Your task to perform on an android device: turn on notifications settings in the gmail app Image 0: 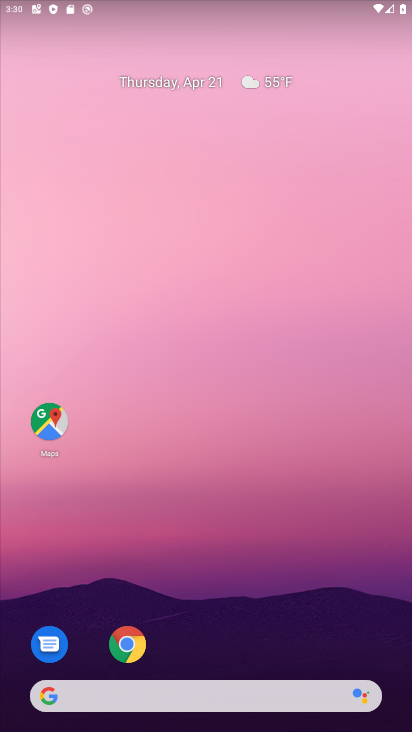
Step 0: drag from (213, 676) to (209, 36)
Your task to perform on an android device: turn on notifications settings in the gmail app Image 1: 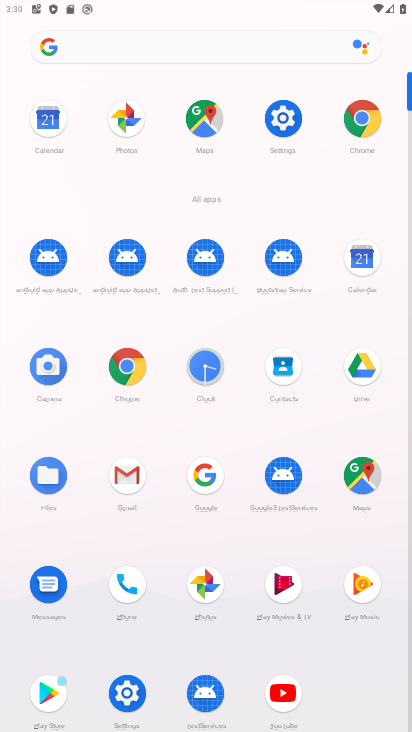
Step 1: click (109, 474)
Your task to perform on an android device: turn on notifications settings in the gmail app Image 2: 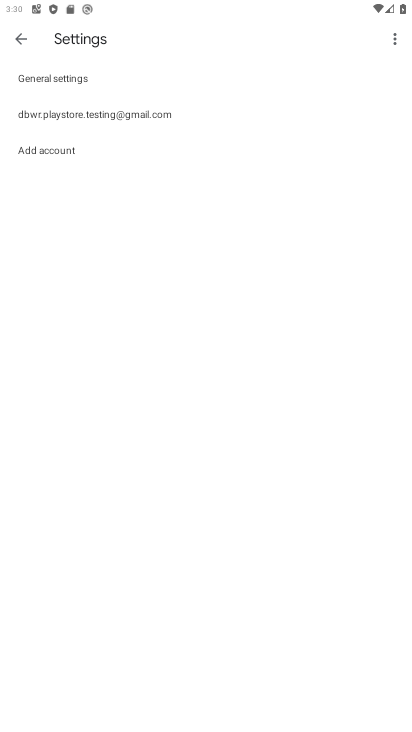
Step 2: click (44, 121)
Your task to perform on an android device: turn on notifications settings in the gmail app Image 3: 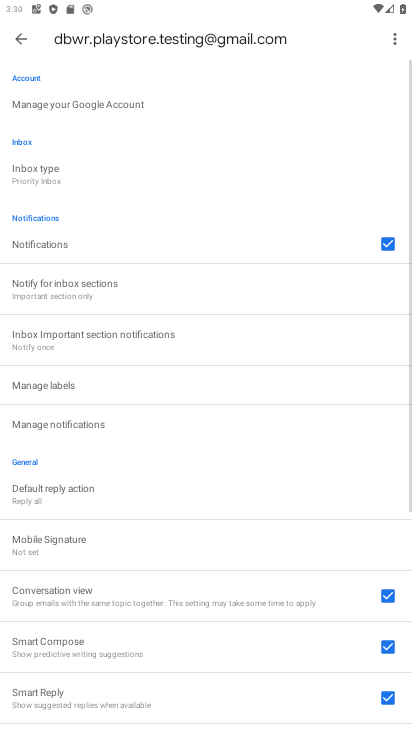
Step 3: click (18, 38)
Your task to perform on an android device: turn on notifications settings in the gmail app Image 4: 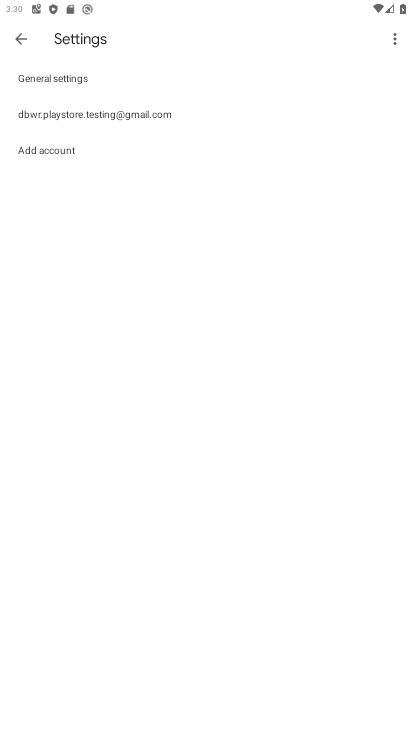
Step 4: click (59, 75)
Your task to perform on an android device: turn on notifications settings in the gmail app Image 5: 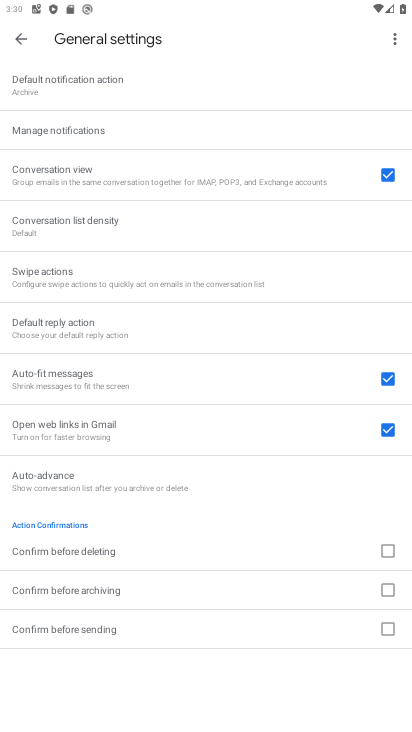
Step 5: click (56, 124)
Your task to perform on an android device: turn on notifications settings in the gmail app Image 6: 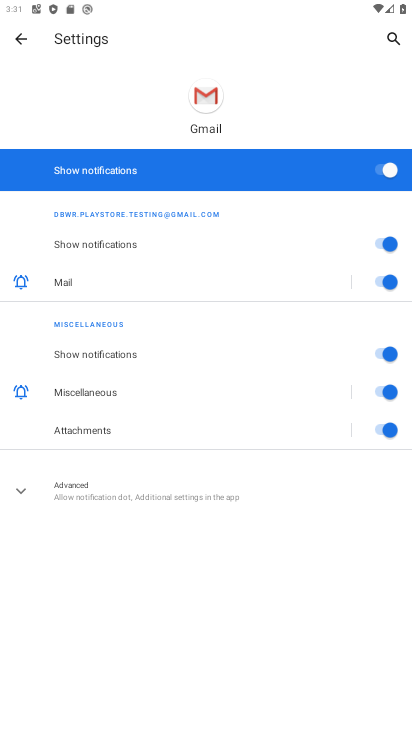
Step 6: task complete